Your task to perform on an android device: search for starred emails in the gmail app Image 0: 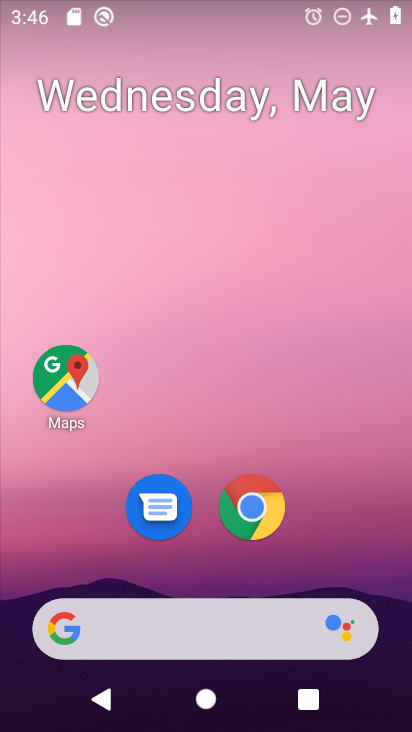
Step 0: drag from (208, 668) to (144, 280)
Your task to perform on an android device: search for starred emails in the gmail app Image 1: 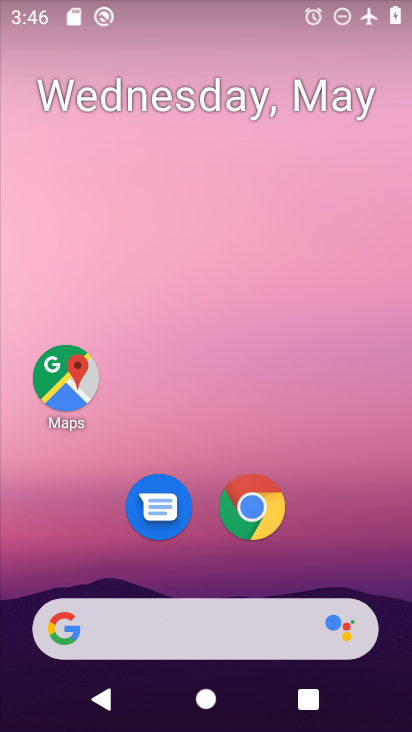
Step 1: drag from (258, 609) to (252, 112)
Your task to perform on an android device: search for starred emails in the gmail app Image 2: 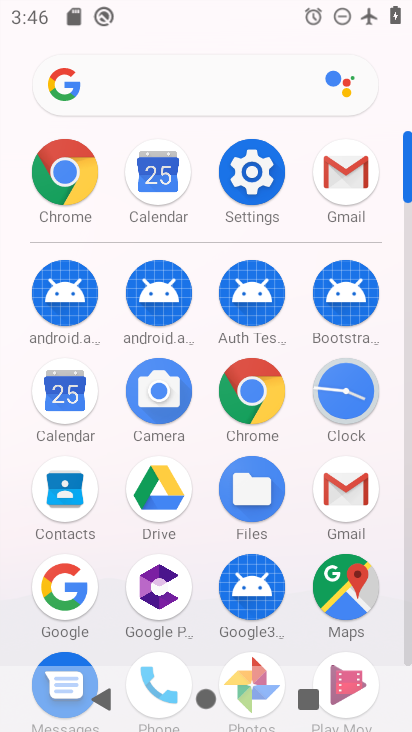
Step 2: click (342, 482)
Your task to perform on an android device: search for starred emails in the gmail app Image 3: 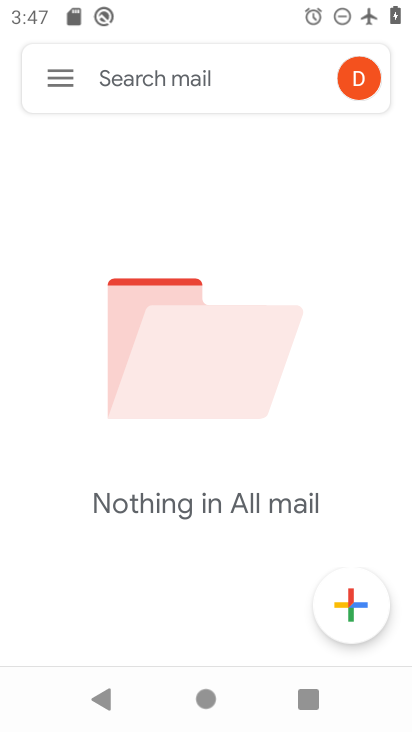
Step 3: click (45, 84)
Your task to perform on an android device: search for starred emails in the gmail app Image 4: 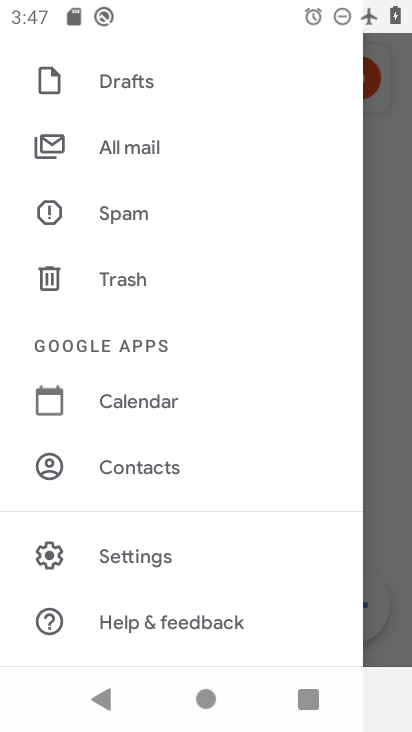
Step 4: drag from (162, 119) to (128, 571)
Your task to perform on an android device: search for starred emails in the gmail app Image 5: 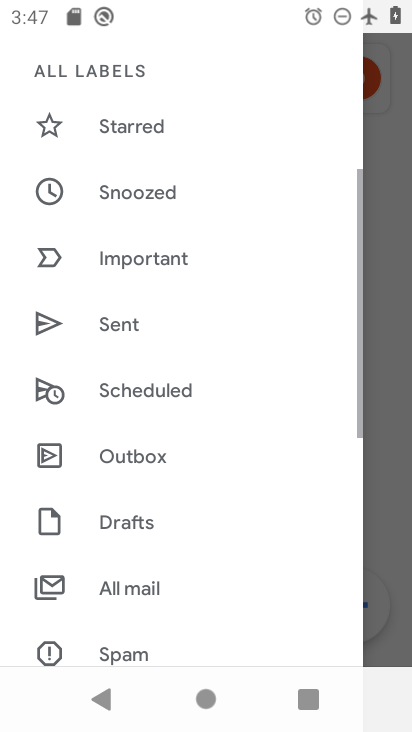
Step 5: click (153, 128)
Your task to perform on an android device: search for starred emails in the gmail app Image 6: 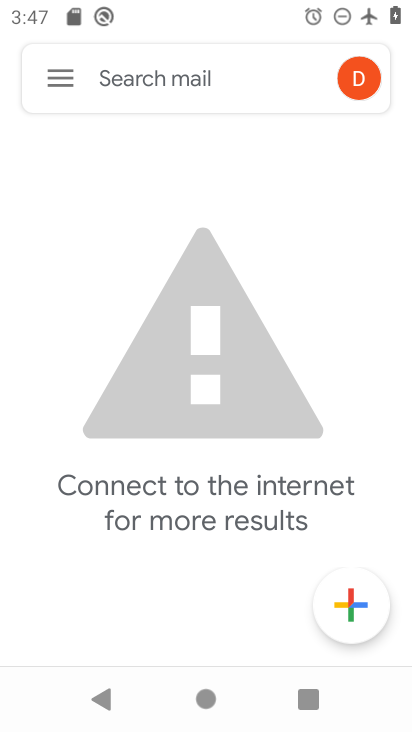
Step 6: task complete